Your task to perform on an android device: open sync settings in chrome Image 0: 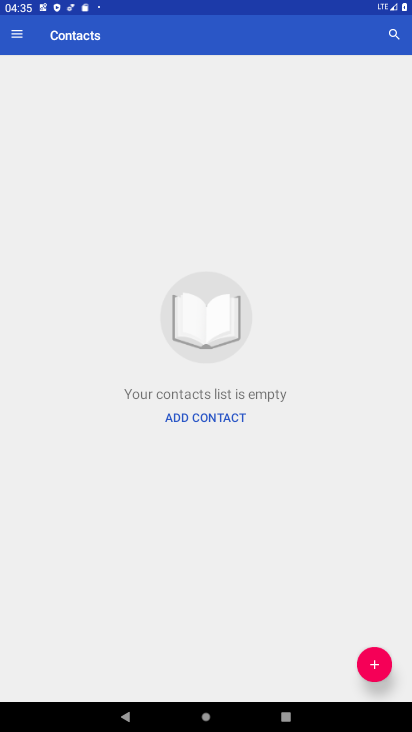
Step 0: press home button
Your task to perform on an android device: open sync settings in chrome Image 1: 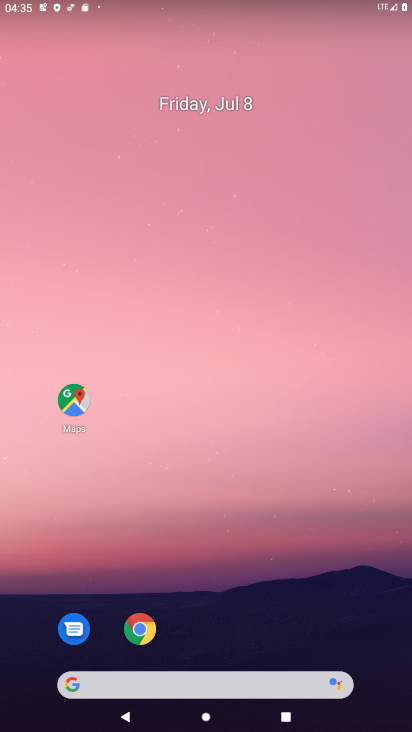
Step 1: click (138, 628)
Your task to perform on an android device: open sync settings in chrome Image 2: 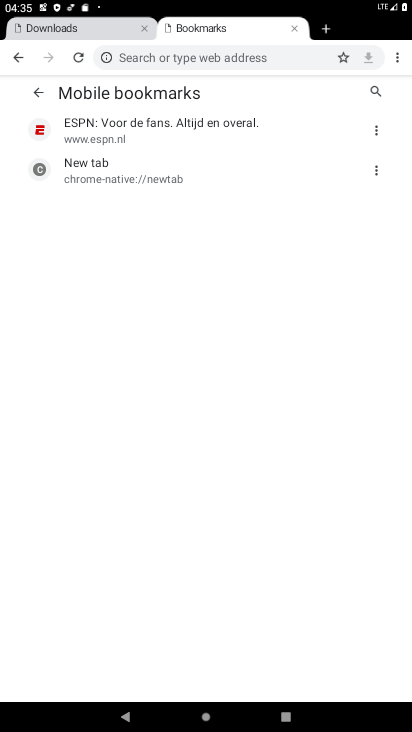
Step 2: click (398, 58)
Your task to perform on an android device: open sync settings in chrome Image 3: 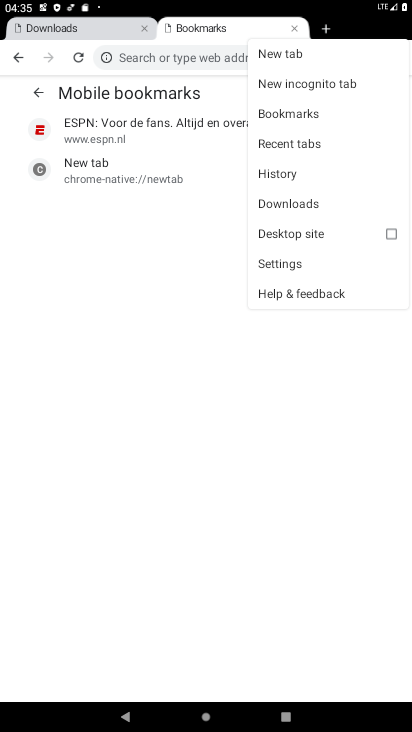
Step 3: click (289, 261)
Your task to perform on an android device: open sync settings in chrome Image 4: 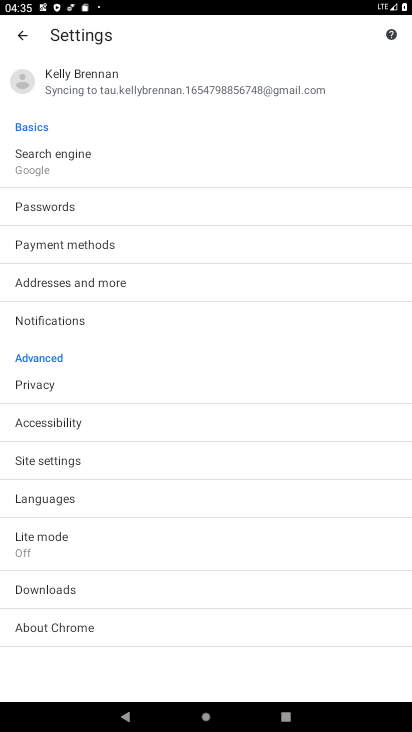
Step 4: click (61, 462)
Your task to perform on an android device: open sync settings in chrome Image 5: 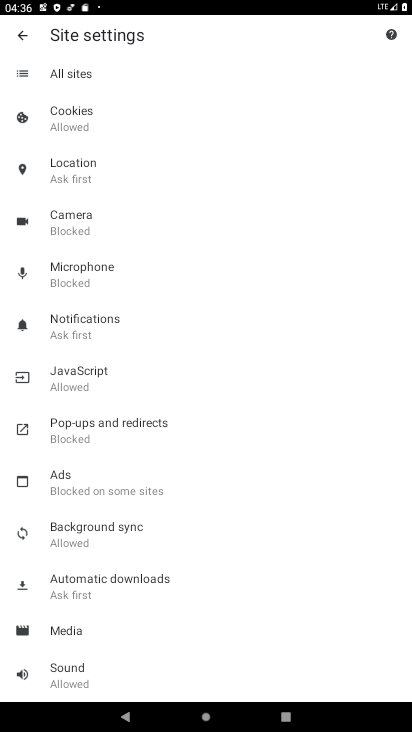
Step 5: click (80, 527)
Your task to perform on an android device: open sync settings in chrome Image 6: 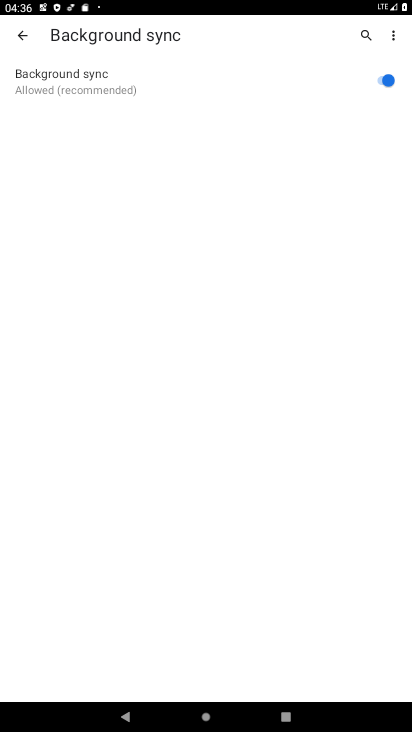
Step 6: task complete